Your task to perform on an android device: Open accessibility settings Image 0: 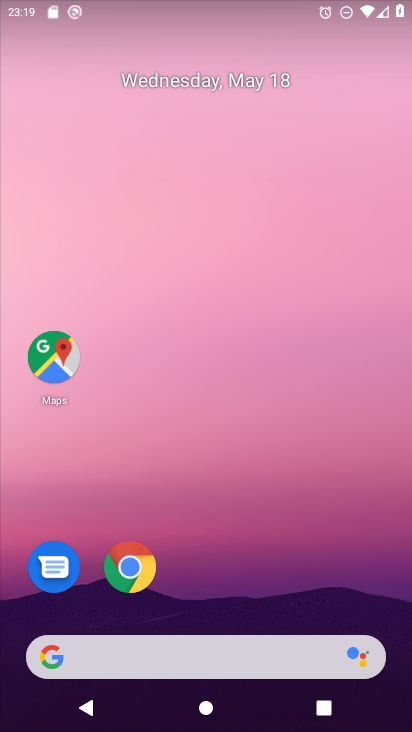
Step 0: drag from (256, 681) to (349, 54)
Your task to perform on an android device: Open accessibility settings Image 1: 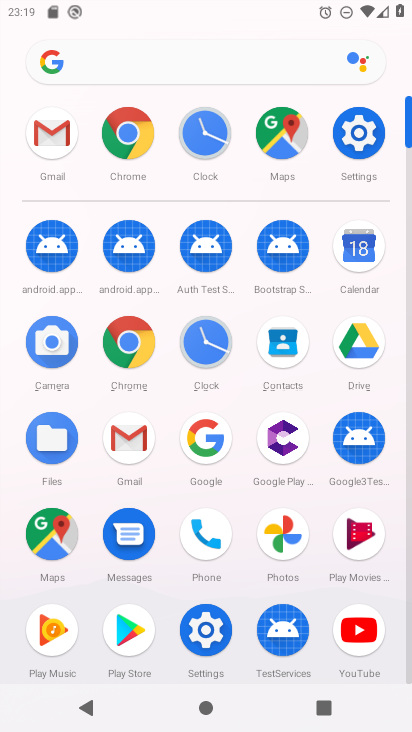
Step 1: click (361, 125)
Your task to perform on an android device: Open accessibility settings Image 2: 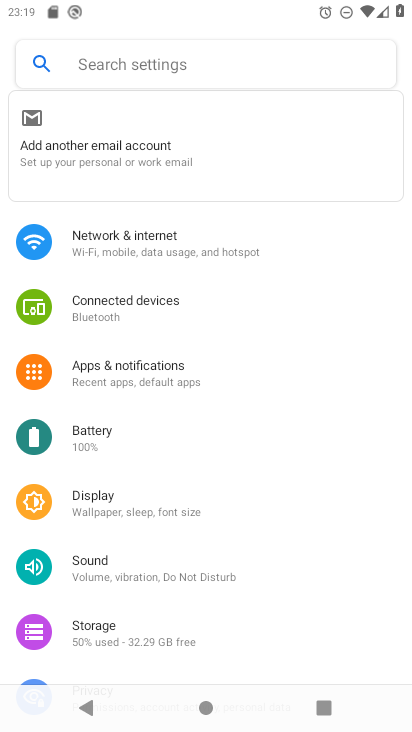
Step 2: click (131, 66)
Your task to perform on an android device: Open accessibility settings Image 3: 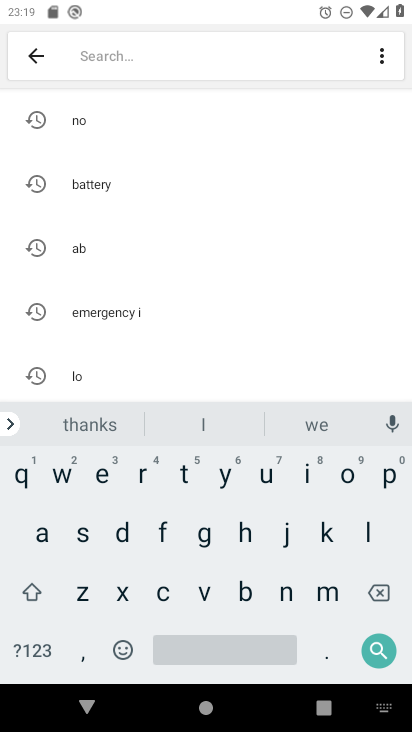
Step 3: click (41, 533)
Your task to perform on an android device: Open accessibility settings Image 4: 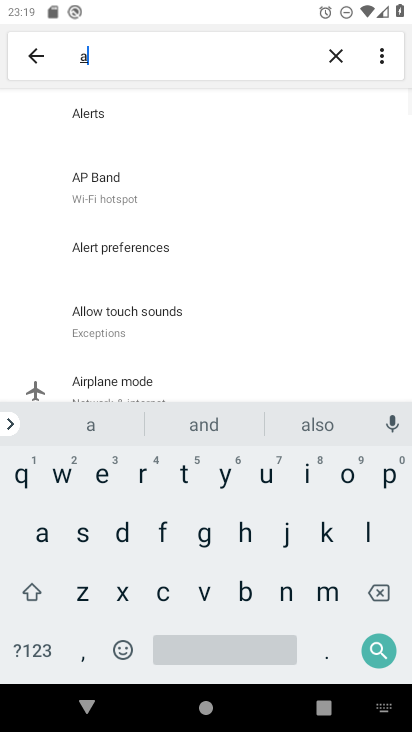
Step 4: click (165, 601)
Your task to perform on an android device: Open accessibility settings Image 5: 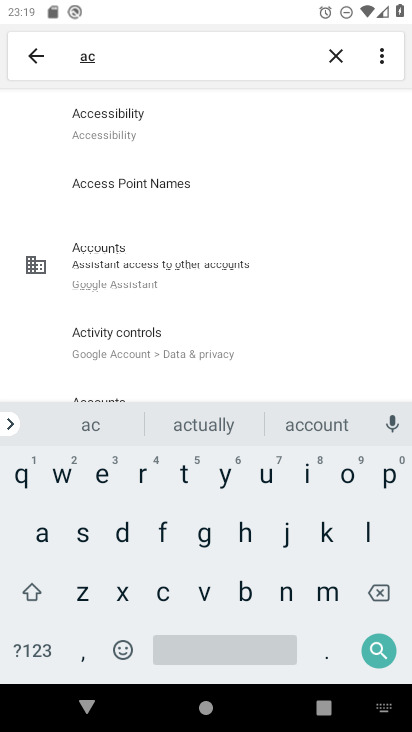
Step 5: click (141, 128)
Your task to perform on an android device: Open accessibility settings Image 6: 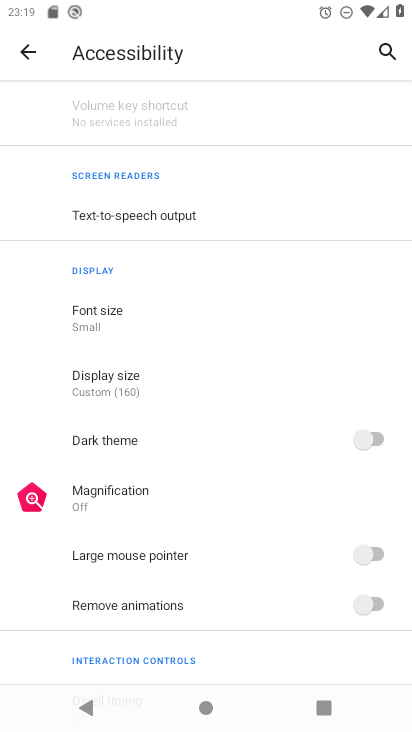
Step 6: task complete